Your task to perform on an android device: Show me productivity apps on the Play Store Image 0: 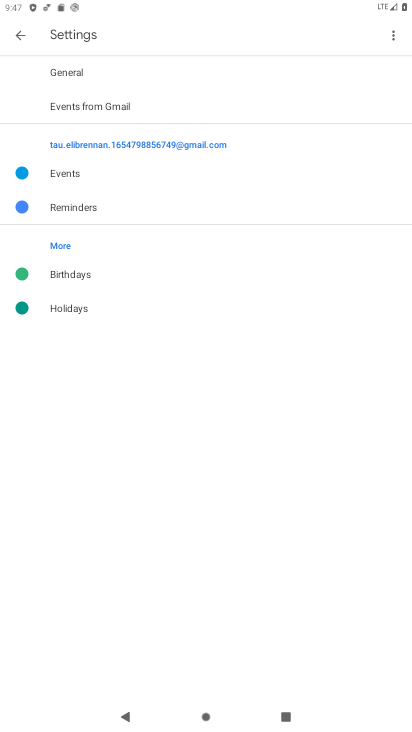
Step 0: press home button
Your task to perform on an android device: Show me productivity apps on the Play Store Image 1: 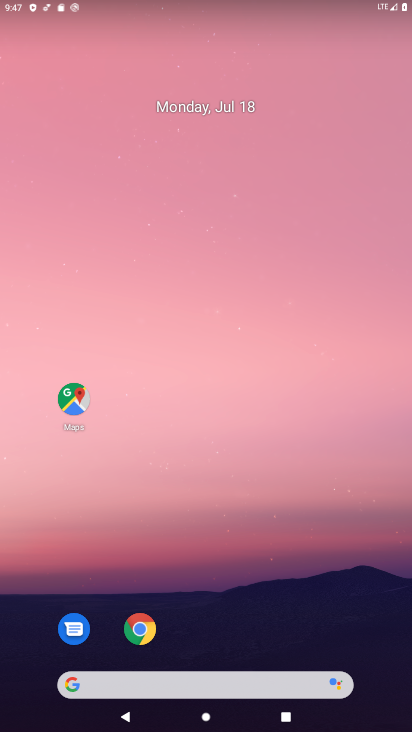
Step 1: drag from (216, 686) to (138, 291)
Your task to perform on an android device: Show me productivity apps on the Play Store Image 2: 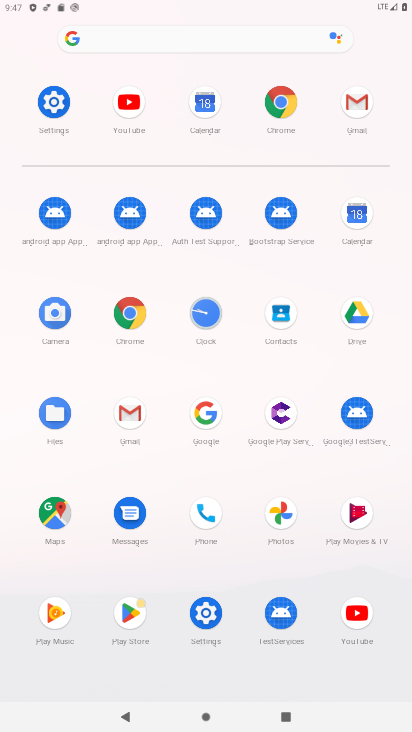
Step 2: click (126, 603)
Your task to perform on an android device: Show me productivity apps on the Play Store Image 3: 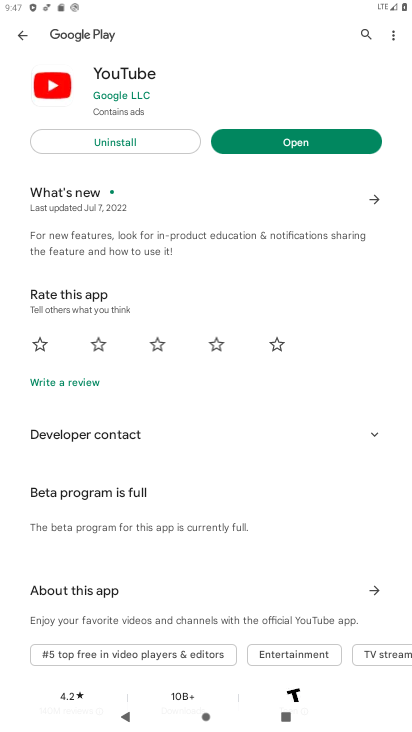
Step 3: click (22, 32)
Your task to perform on an android device: Show me productivity apps on the Play Store Image 4: 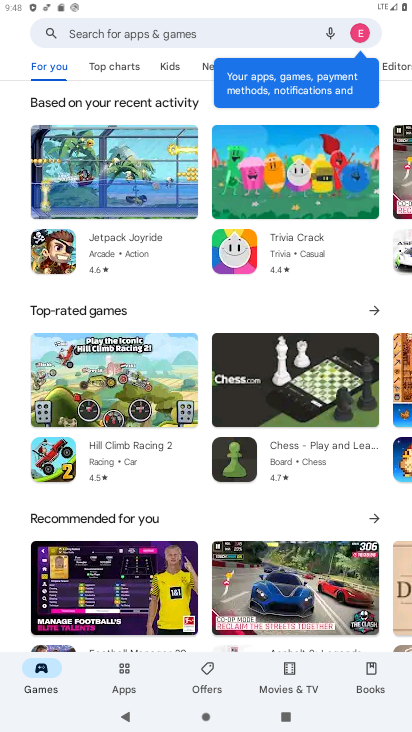
Step 4: click (123, 685)
Your task to perform on an android device: Show me productivity apps on the Play Store Image 5: 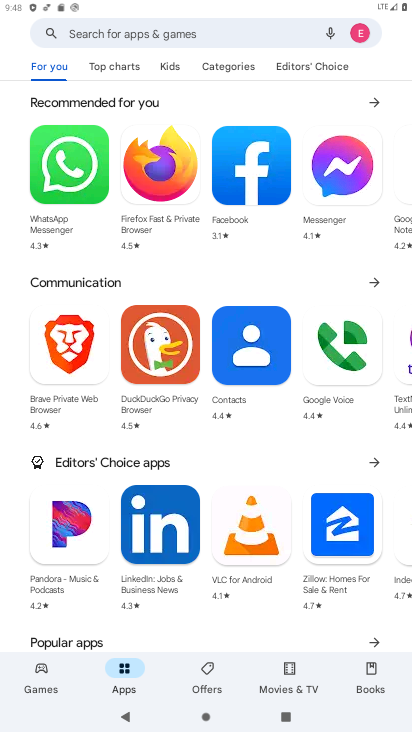
Step 5: click (214, 65)
Your task to perform on an android device: Show me productivity apps on the Play Store Image 6: 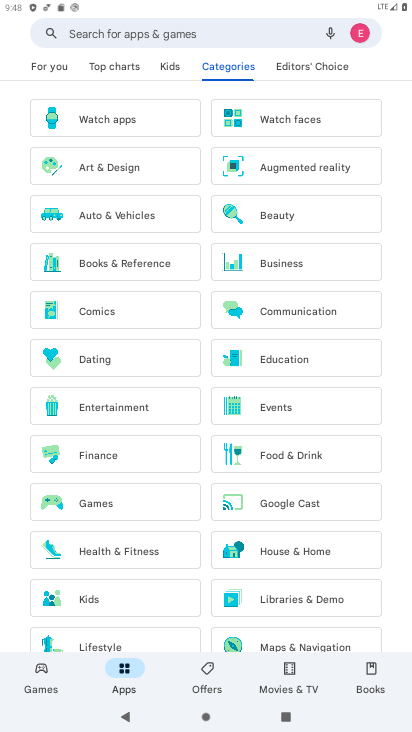
Step 6: drag from (230, 556) to (225, 320)
Your task to perform on an android device: Show me productivity apps on the Play Store Image 7: 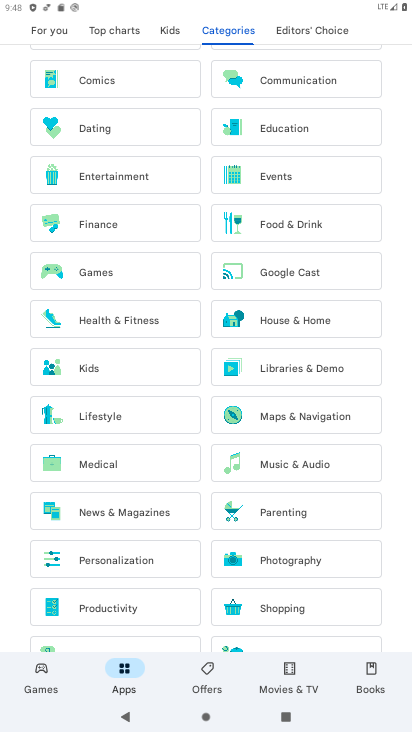
Step 7: click (144, 609)
Your task to perform on an android device: Show me productivity apps on the Play Store Image 8: 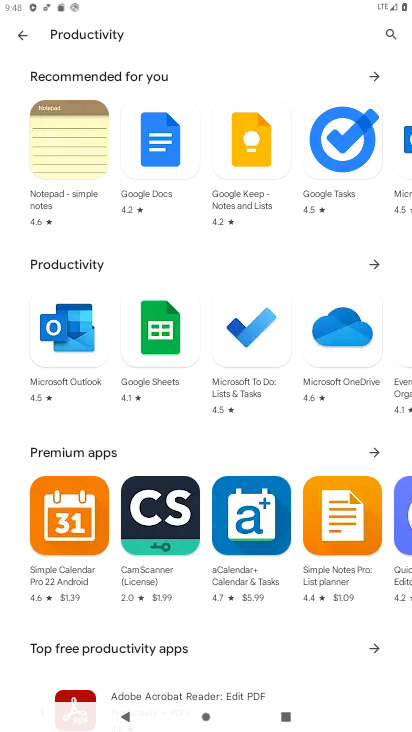
Step 8: task complete